Your task to perform on an android device: check battery use Image 0: 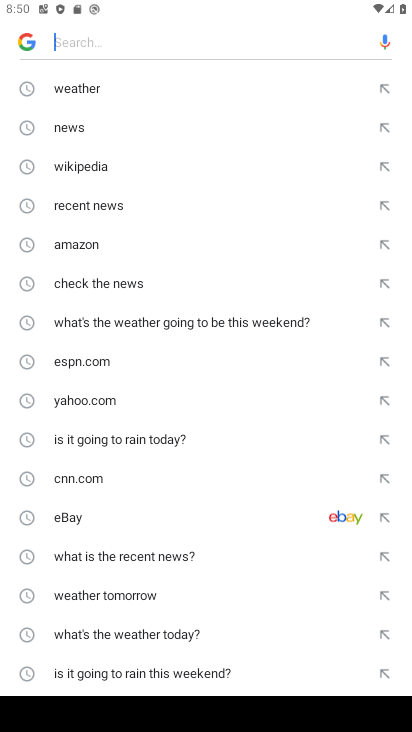
Step 0: press home button
Your task to perform on an android device: check battery use Image 1: 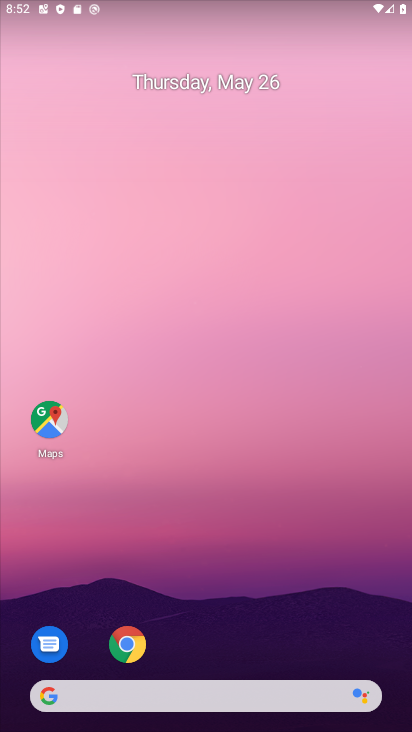
Step 1: drag from (210, 674) to (280, 52)
Your task to perform on an android device: check battery use Image 2: 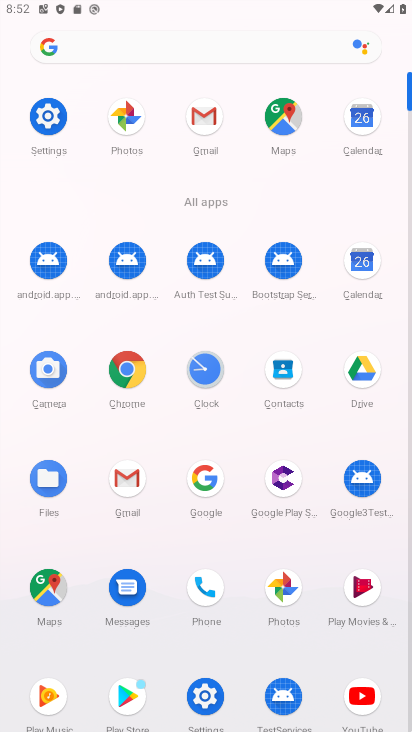
Step 2: click (42, 103)
Your task to perform on an android device: check battery use Image 3: 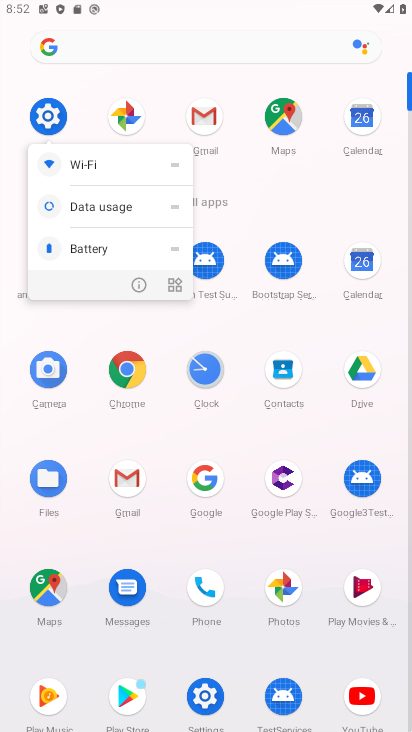
Step 3: click (47, 109)
Your task to perform on an android device: check battery use Image 4: 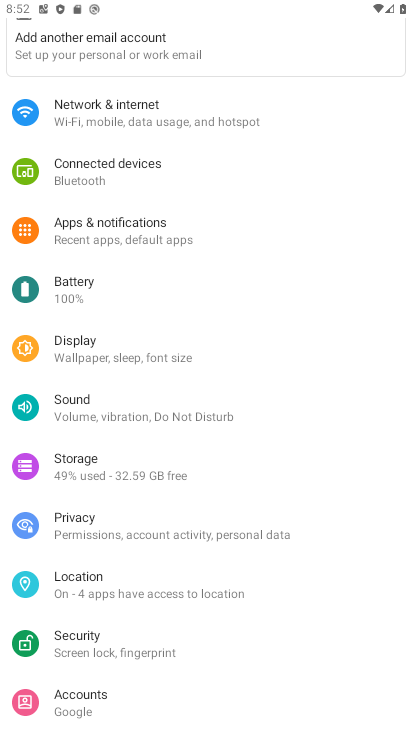
Step 4: click (136, 287)
Your task to perform on an android device: check battery use Image 5: 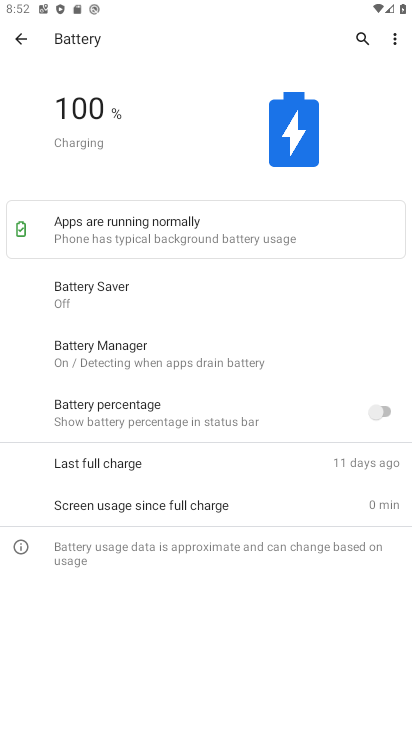
Step 5: click (395, 31)
Your task to perform on an android device: check battery use Image 6: 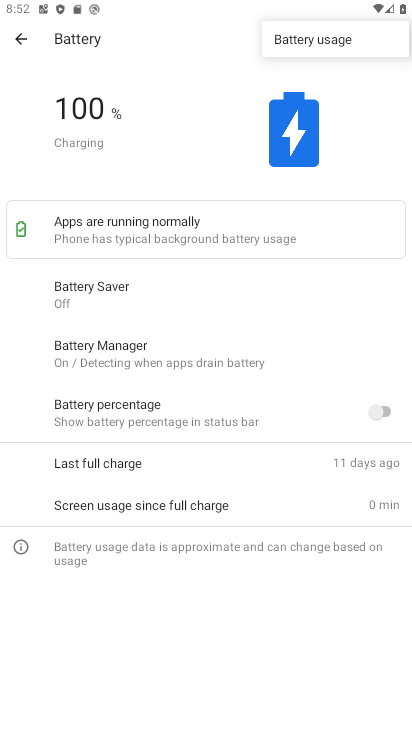
Step 6: click (366, 35)
Your task to perform on an android device: check battery use Image 7: 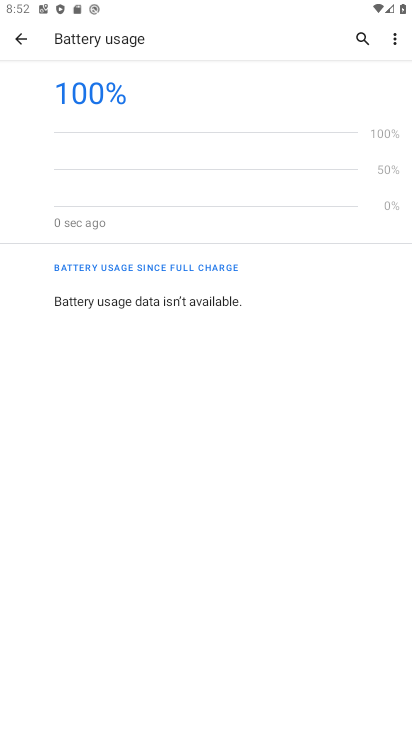
Step 7: task complete